Your task to perform on an android device: Go to Google Image 0: 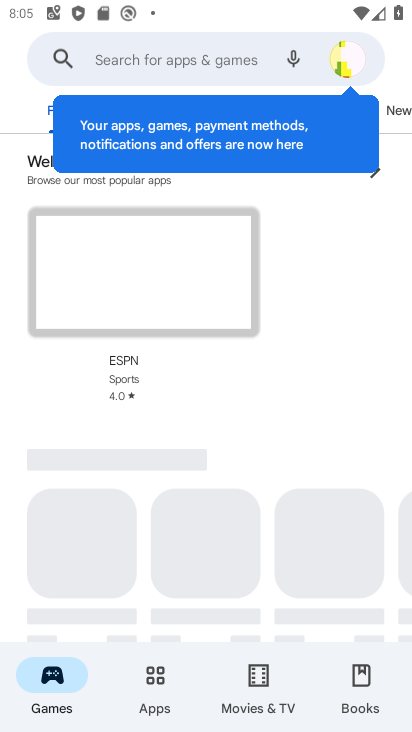
Step 0: press home button
Your task to perform on an android device: Go to Google Image 1: 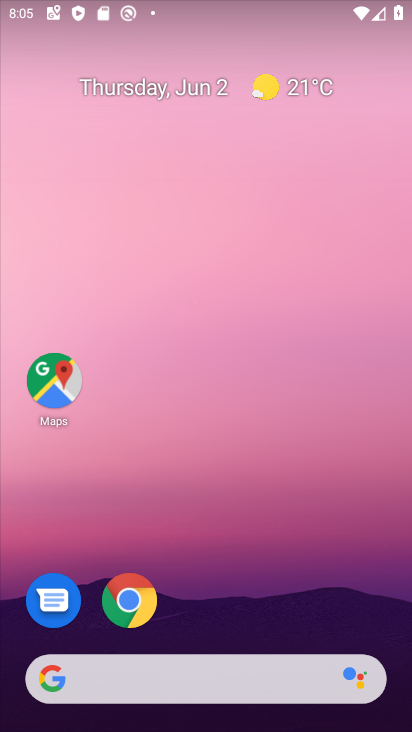
Step 1: drag from (377, 616) to (368, 255)
Your task to perform on an android device: Go to Google Image 2: 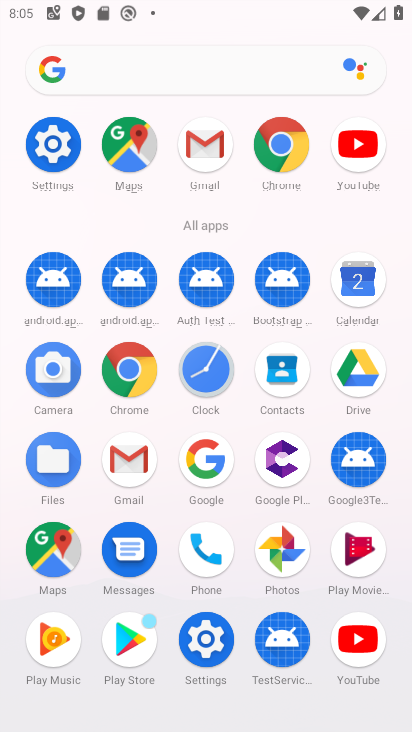
Step 2: click (211, 478)
Your task to perform on an android device: Go to Google Image 3: 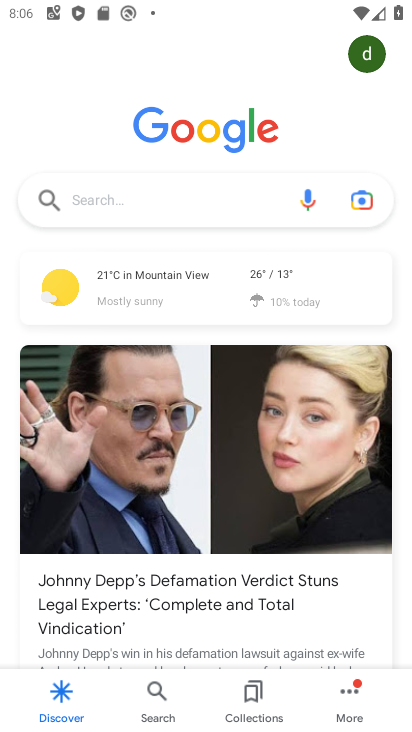
Step 3: task complete